Your task to perform on an android device: toggle javascript in the chrome app Image 0: 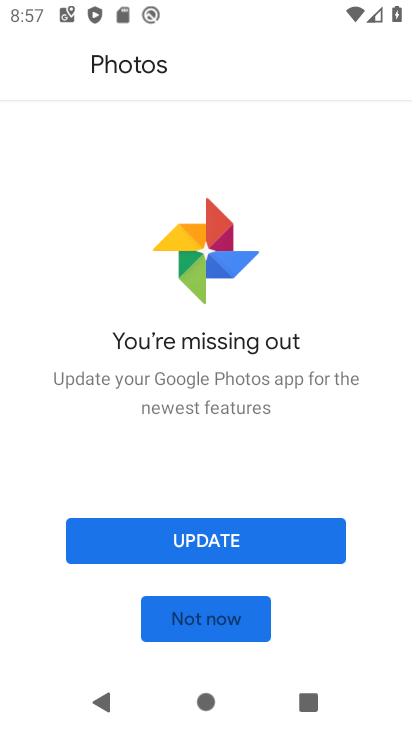
Step 0: press home button
Your task to perform on an android device: toggle javascript in the chrome app Image 1: 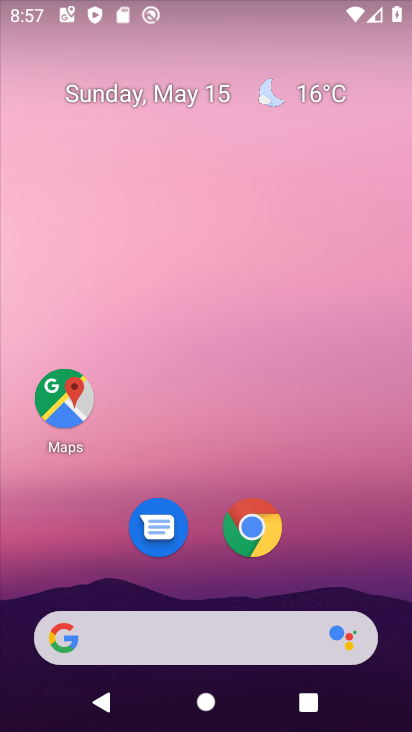
Step 1: click (256, 541)
Your task to perform on an android device: toggle javascript in the chrome app Image 2: 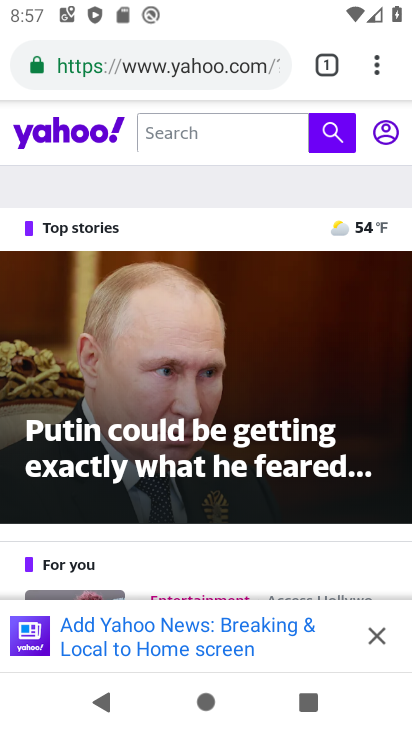
Step 2: click (382, 69)
Your task to perform on an android device: toggle javascript in the chrome app Image 3: 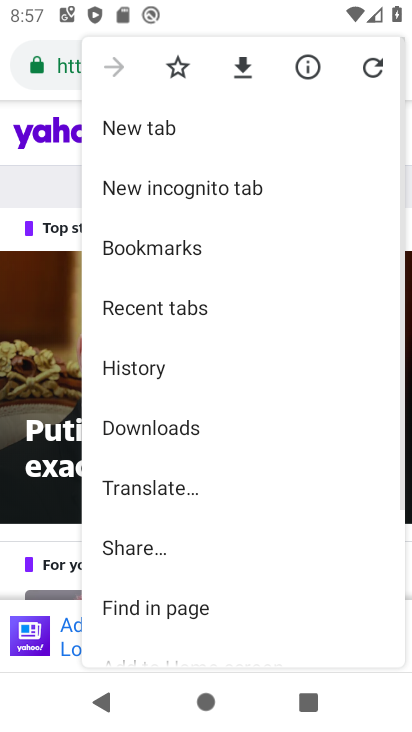
Step 3: drag from (241, 506) to (241, 141)
Your task to perform on an android device: toggle javascript in the chrome app Image 4: 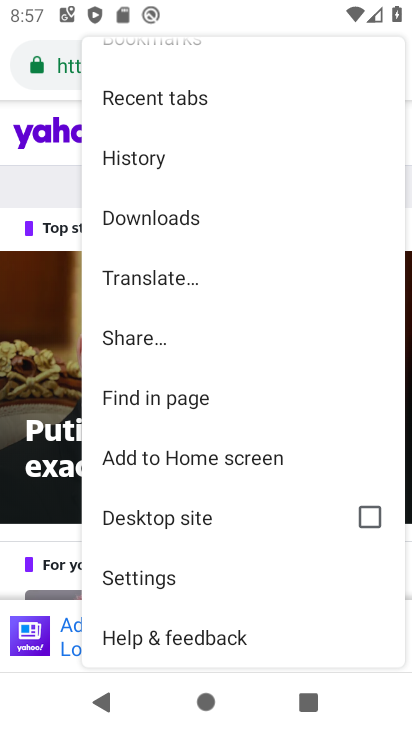
Step 4: click (143, 582)
Your task to perform on an android device: toggle javascript in the chrome app Image 5: 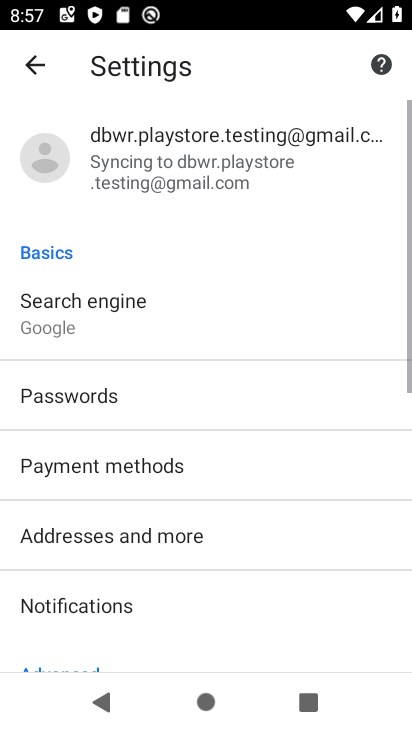
Step 5: drag from (143, 582) to (130, 142)
Your task to perform on an android device: toggle javascript in the chrome app Image 6: 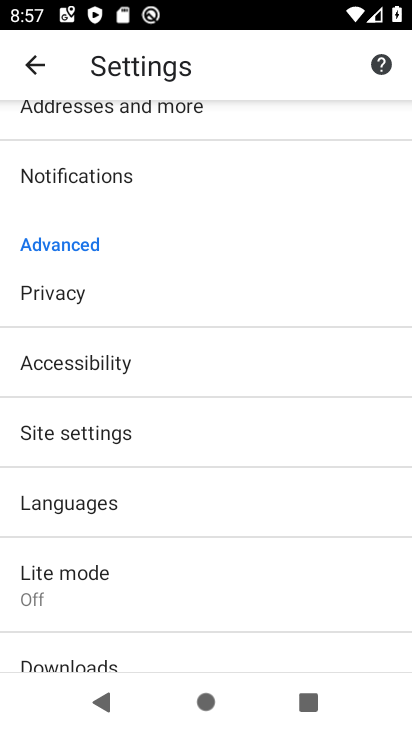
Step 6: click (96, 432)
Your task to perform on an android device: toggle javascript in the chrome app Image 7: 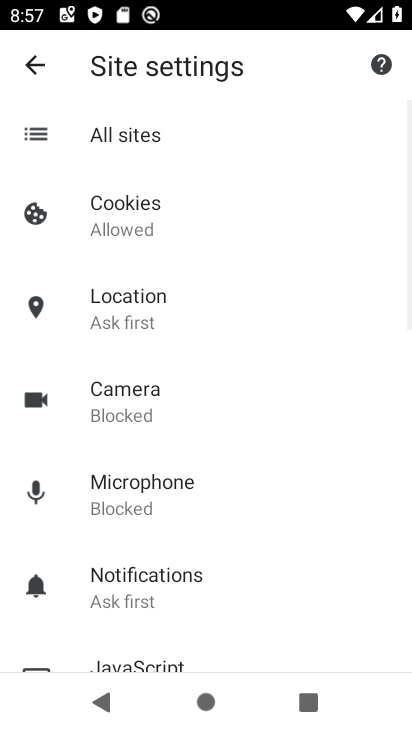
Step 7: drag from (219, 557) to (228, 162)
Your task to perform on an android device: toggle javascript in the chrome app Image 8: 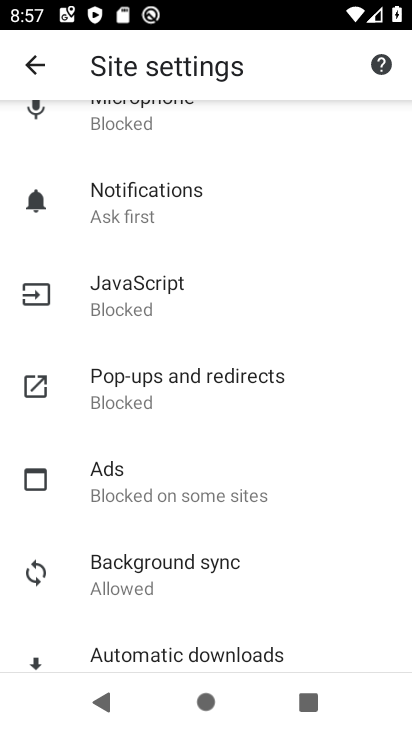
Step 8: click (132, 303)
Your task to perform on an android device: toggle javascript in the chrome app Image 9: 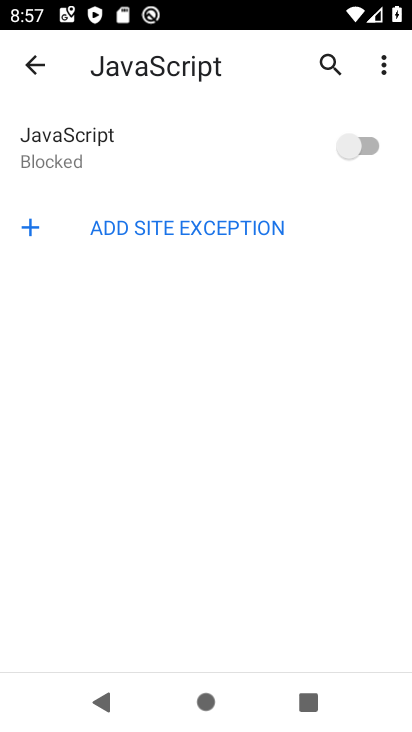
Step 9: click (346, 144)
Your task to perform on an android device: toggle javascript in the chrome app Image 10: 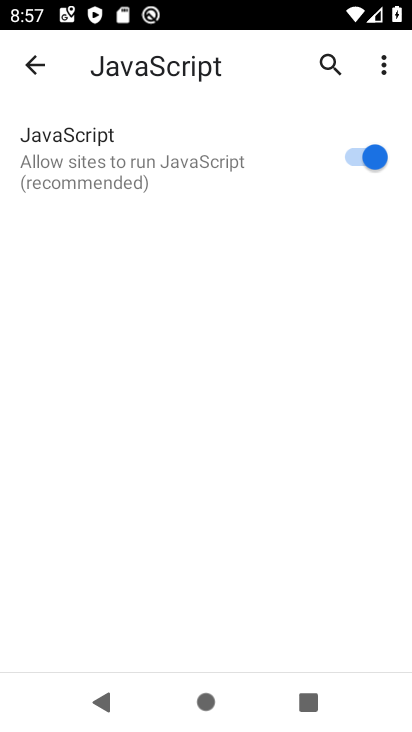
Step 10: task complete